Your task to perform on an android device: clear history in the chrome app Image 0: 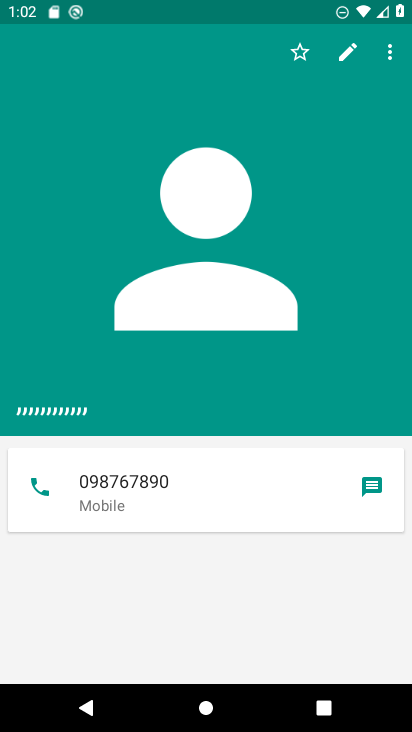
Step 0: press home button
Your task to perform on an android device: clear history in the chrome app Image 1: 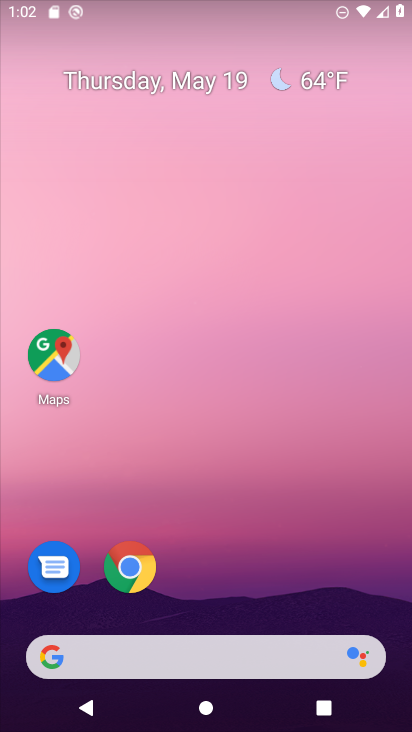
Step 1: click (143, 569)
Your task to perform on an android device: clear history in the chrome app Image 2: 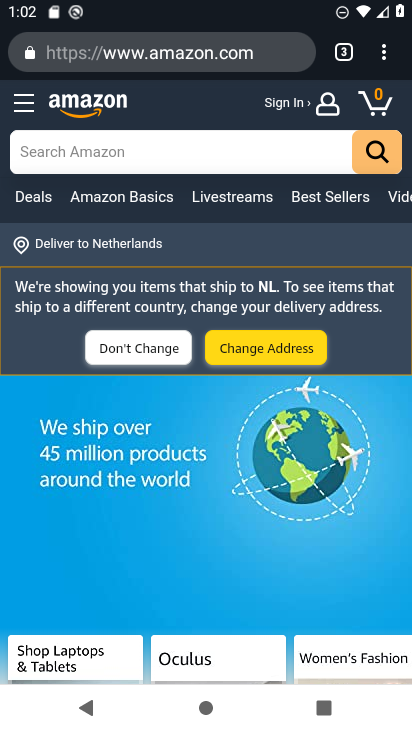
Step 2: drag from (388, 49) to (218, 287)
Your task to perform on an android device: clear history in the chrome app Image 3: 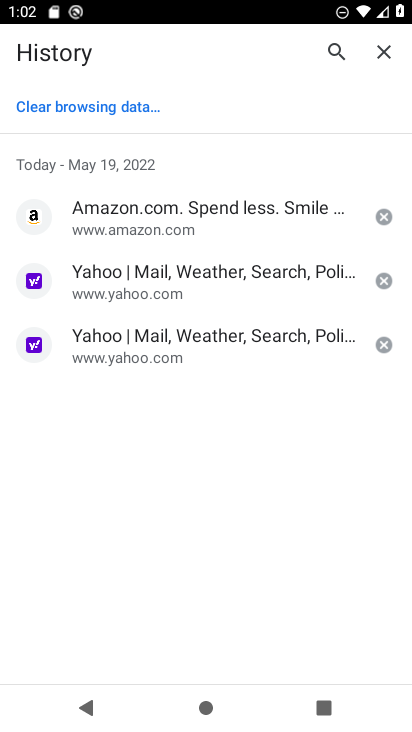
Step 3: click (131, 102)
Your task to perform on an android device: clear history in the chrome app Image 4: 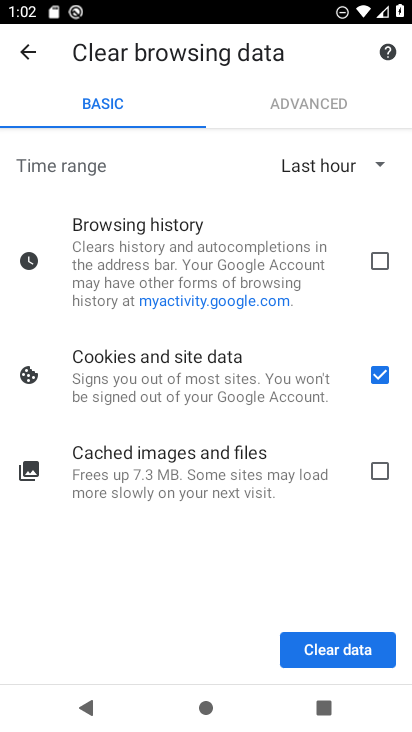
Step 4: click (383, 253)
Your task to perform on an android device: clear history in the chrome app Image 5: 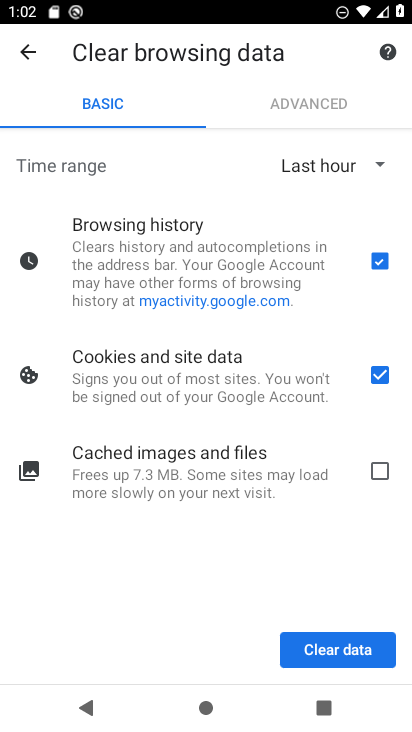
Step 5: click (387, 370)
Your task to perform on an android device: clear history in the chrome app Image 6: 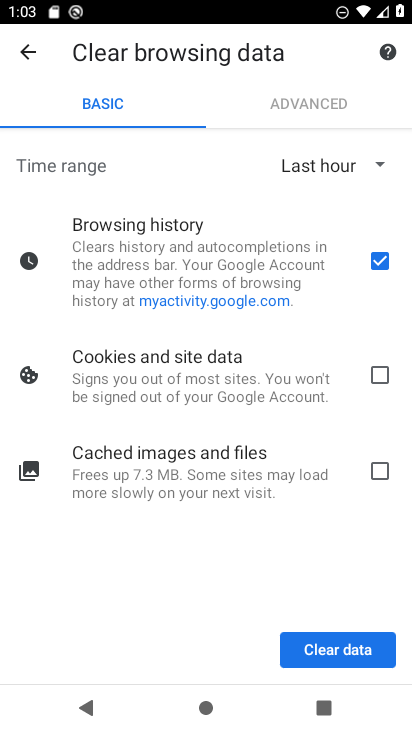
Step 6: click (338, 650)
Your task to perform on an android device: clear history in the chrome app Image 7: 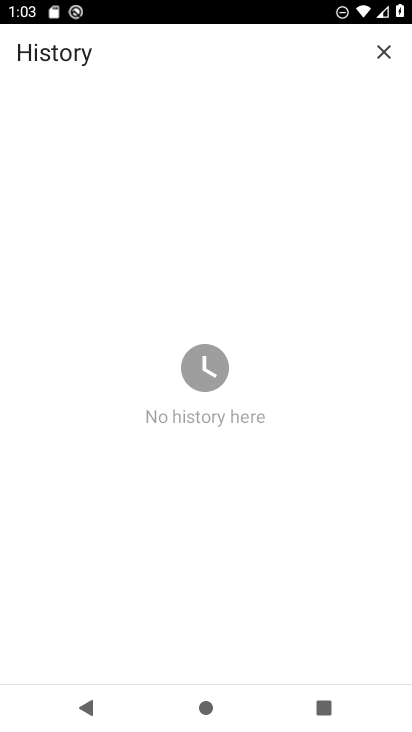
Step 7: task complete